Your task to perform on an android device: Do I have any events this weekend? Image 0: 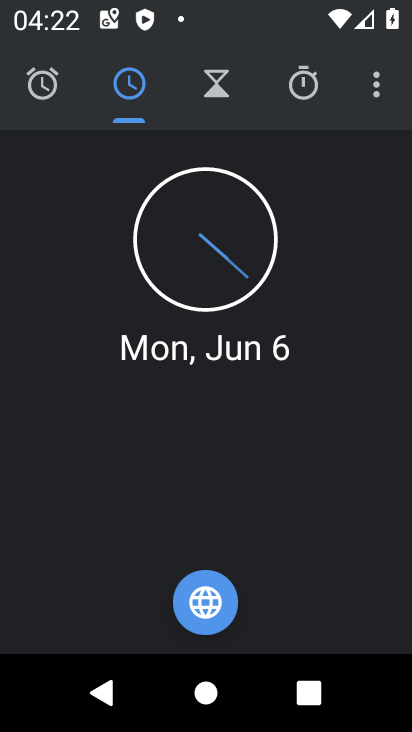
Step 0: press home button
Your task to perform on an android device: Do I have any events this weekend? Image 1: 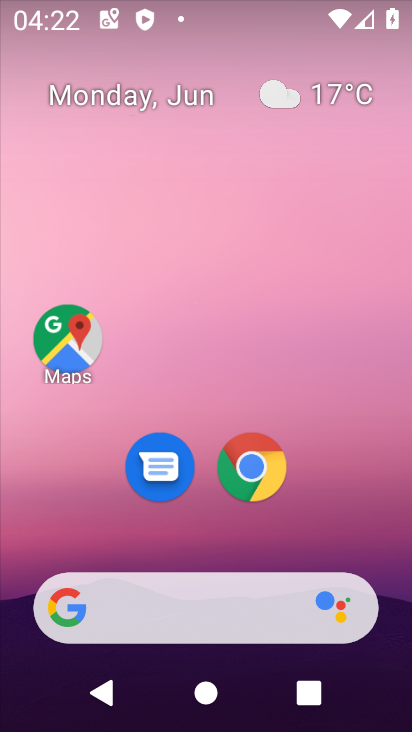
Step 1: drag from (222, 544) to (349, 9)
Your task to perform on an android device: Do I have any events this weekend? Image 2: 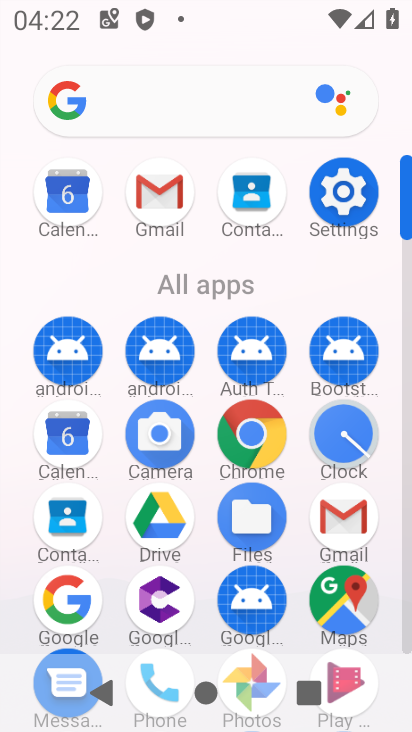
Step 2: click (60, 448)
Your task to perform on an android device: Do I have any events this weekend? Image 3: 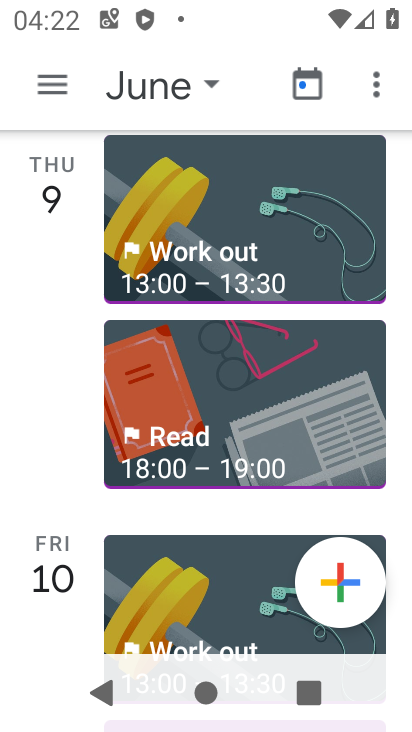
Step 3: click (42, 91)
Your task to perform on an android device: Do I have any events this weekend? Image 4: 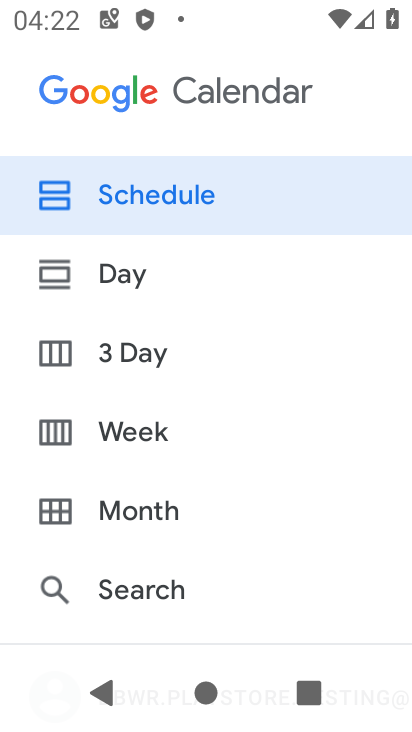
Step 4: drag from (120, 492) to (263, 26)
Your task to perform on an android device: Do I have any events this weekend? Image 5: 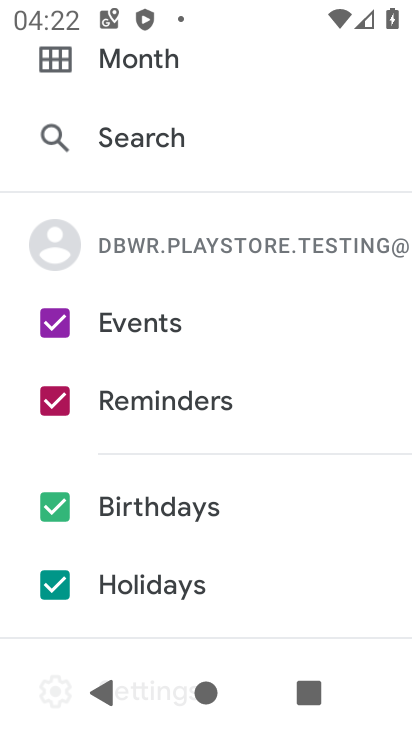
Step 5: click (188, 409)
Your task to perform on an android device: Do I have any events this weekend? Image 6: 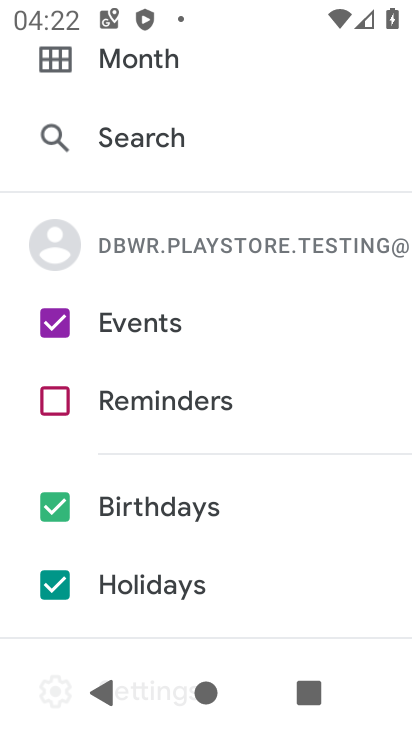
Step 6: click (165, 510)
Your task to perform on an android device: Do I have any events this weekend? Image 7: 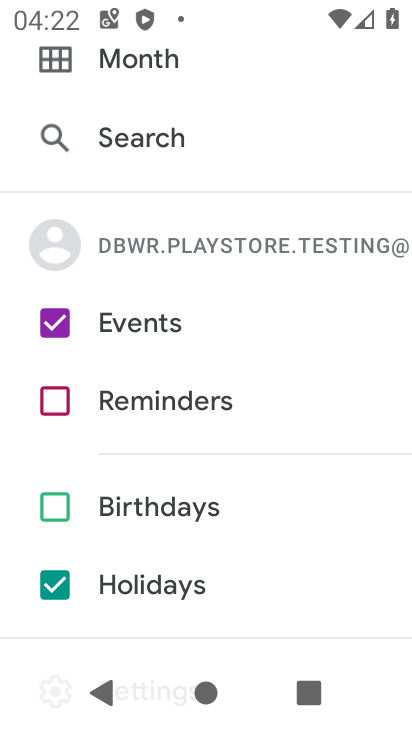
Step 7: click (139, 588)
Your task to perform on an android device: Do I have any events this weekend? Image 8: 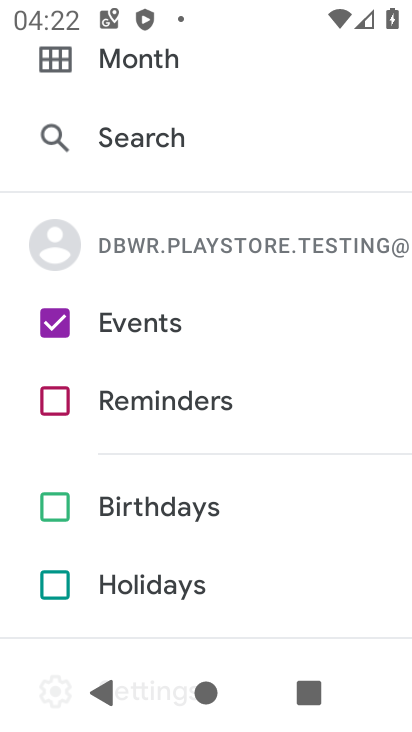
Step 8: drag from (186, 144) to (258, 628)
Your task to perform on an android device: Do I have any events this weekend? Image 9: 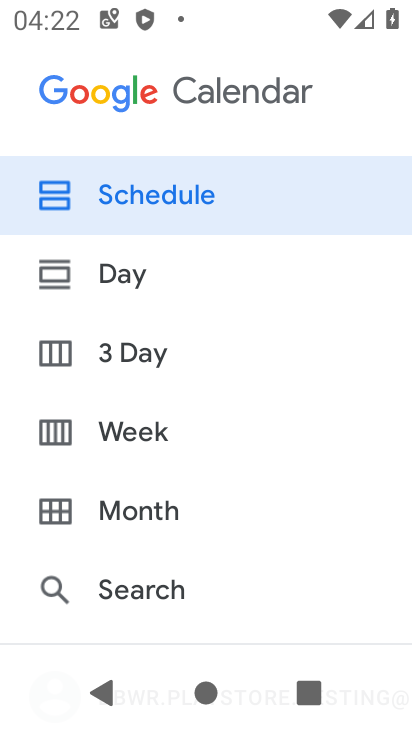
Step 9: click (148, 444)
Your task to perform on an android device: Do I have any events this weekend? Image 10: 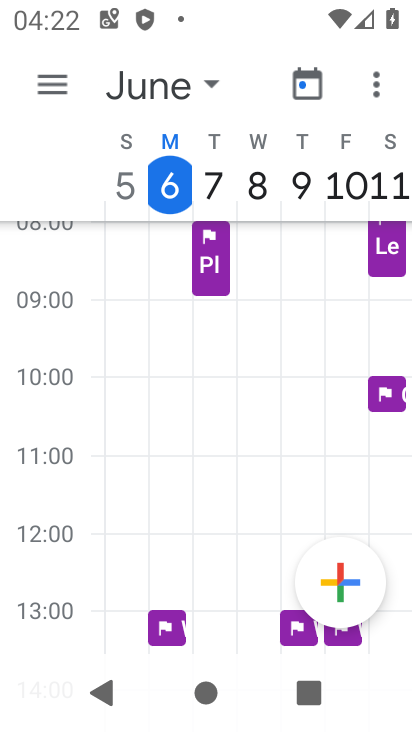
Step 10: task complete